Your task to perform on an android device: Open the stopwatch Image 0: 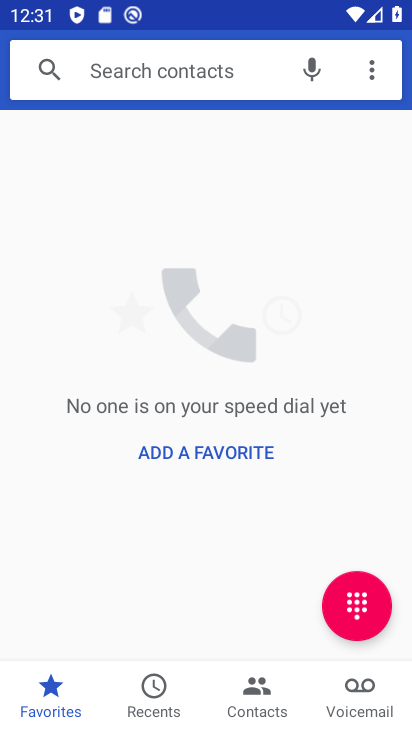
Step 0: press home button
Your task to perform on an android device: Open the stopwatch Image 1: 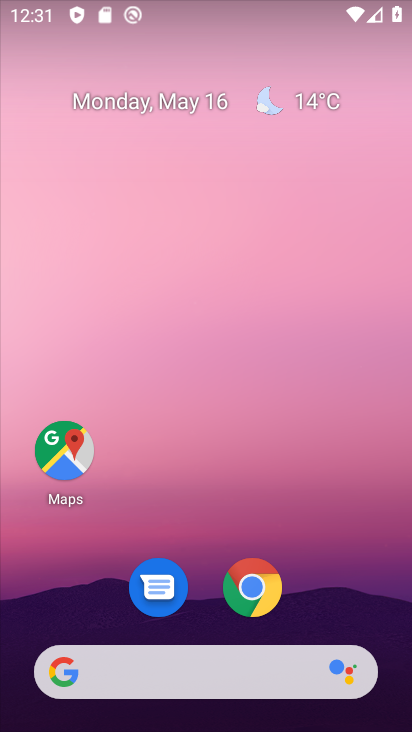
Step 1: drag from (216, 721) to (239, 224)
Your task to perform on an android device: Open the stopwatch Image 2: 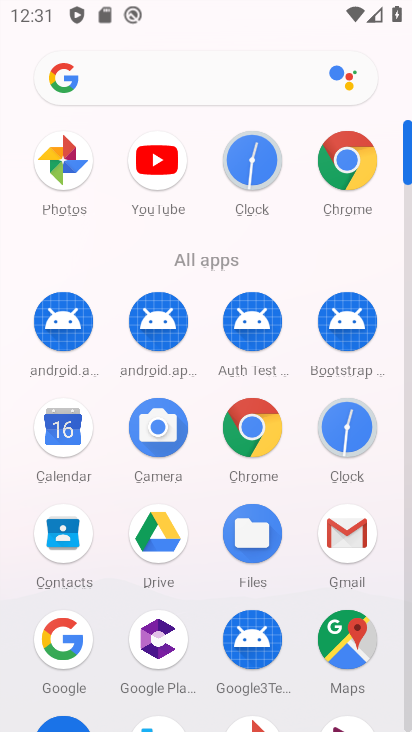
Step 2: click (350, 431)
Your task to perform on an android device: Open the stopwatch Image 3: 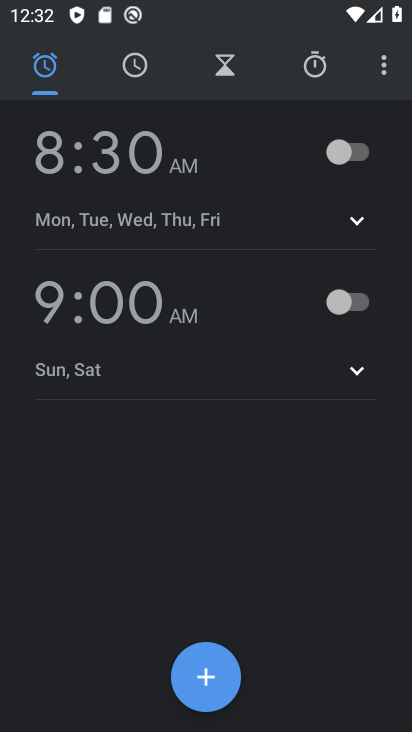
Step 3: click (318, 66)
Your task to perform on an android device: Open the stopwatch Image 4: 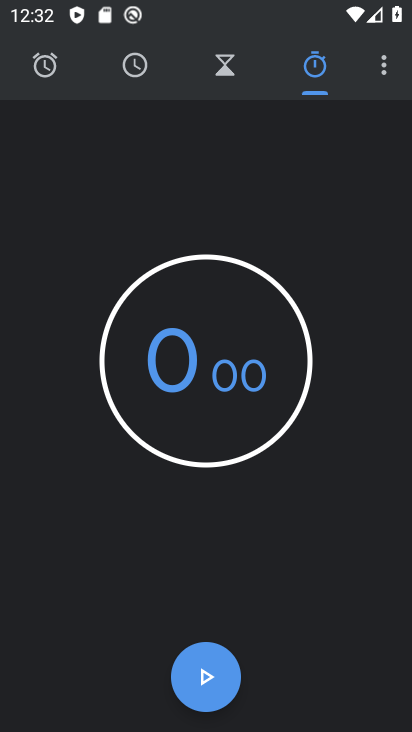
Step 4: task complete